Your task to perform on an android device: turn off sleep mode Image 0: 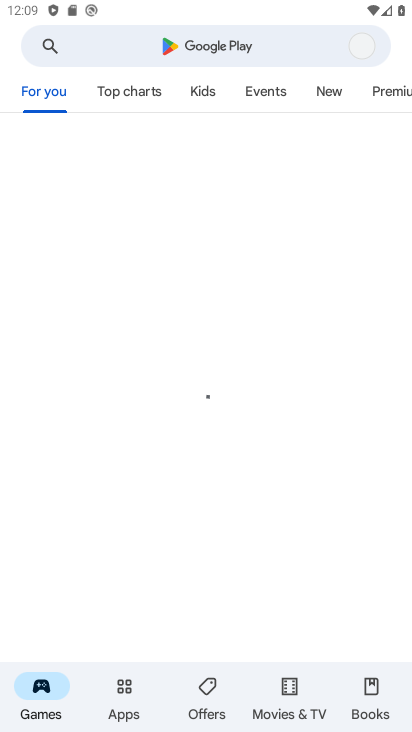
Step 0: press home button
Your task to perform on an android device: turn off sleep mode Image 1: 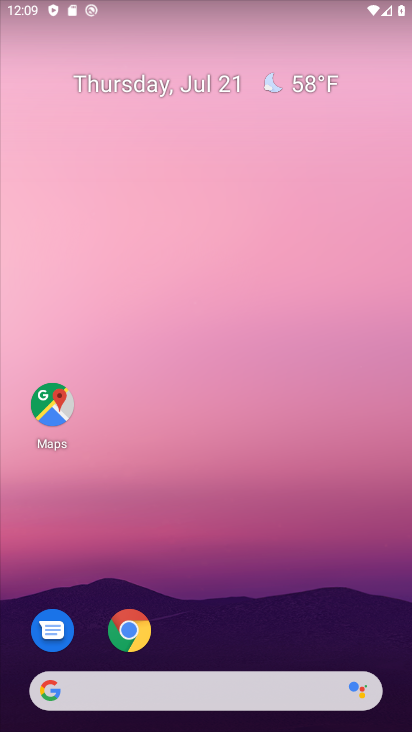
Step 1: drag from (213, 679) to (153, 278)
Your task to perform on an android device: turn off sleep mode Image 2: 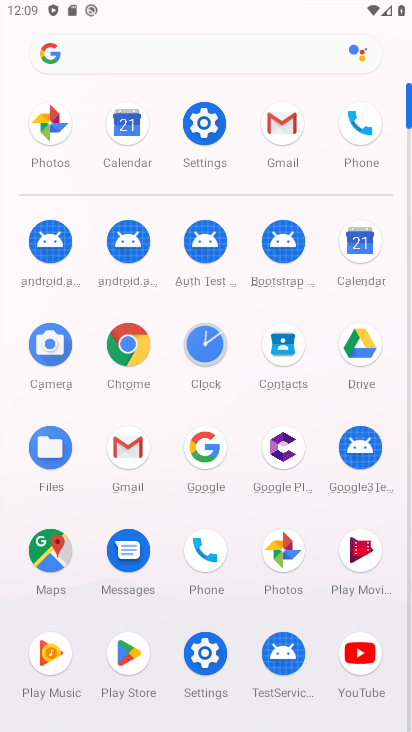
Step 2: click (208, 127)
Your task to perform on an android device: turn off sleep mode Image 3: 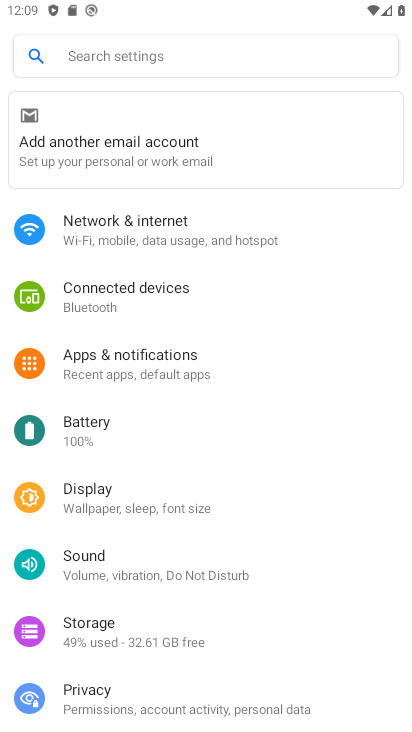
Step 3: click (93, 500)
Your task to perform on an android device: turn off sleep mode Image 4: 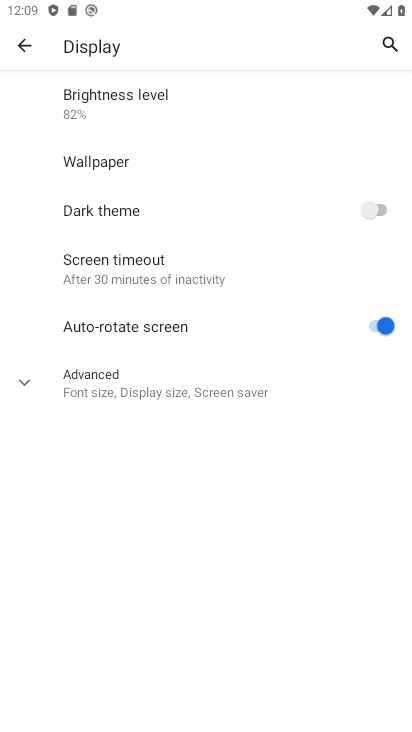
Step 4: click (150, 381)
Your task to perform on an android device: turn off sleep mode Image 5: 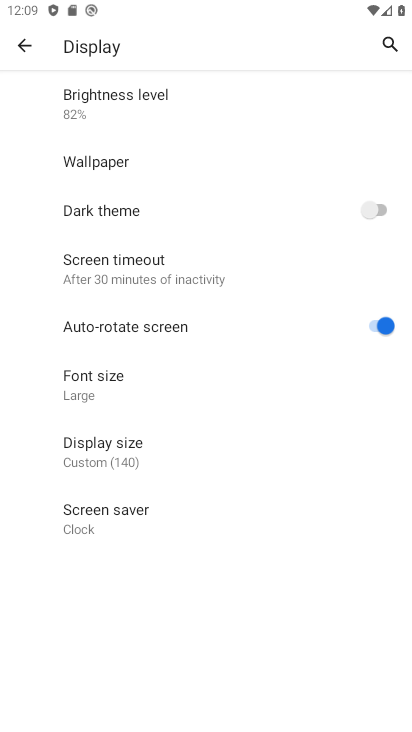
Step 5: task complete